Your task to perform on an android device: delete a single message in the gmail app Image 0: 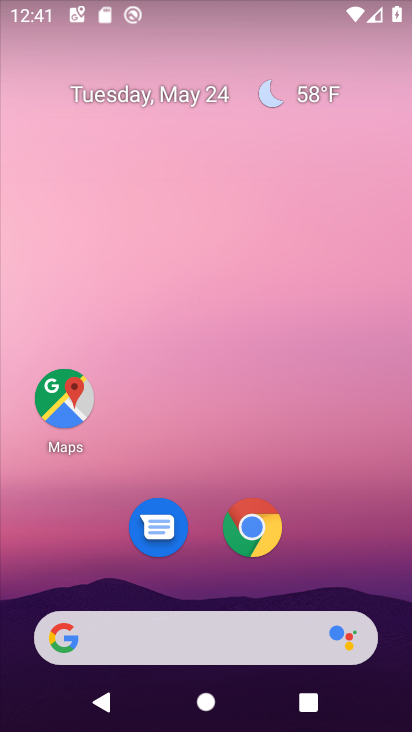
Step 0: drag from (374, 586) to (315, 64)
Your task to perform on an android device: delete a single message in the gmail app Image 1: 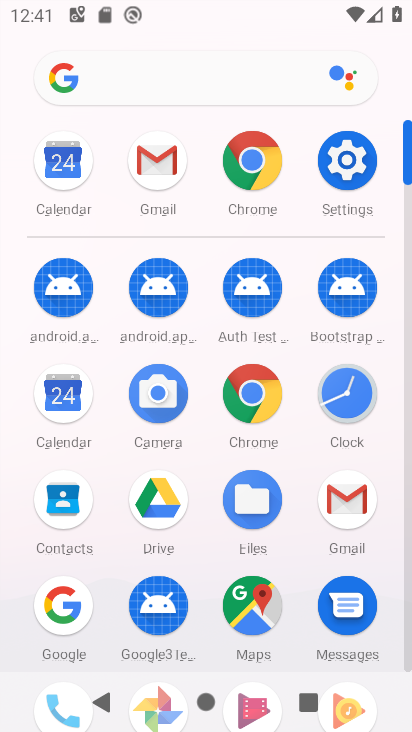
Step 1: click (151, 188)
Your task to perform on an android device: delete a single message in the gmail app Image 2: 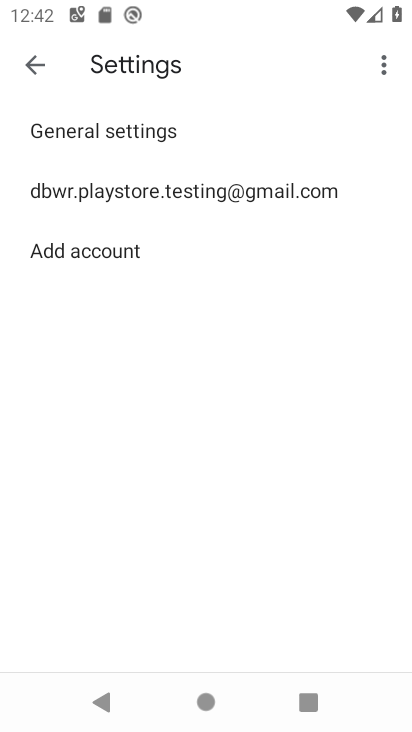
Step 2: click (28, 63)
Your task to perform on an android device: delete a single message in the gmail app Image 3: 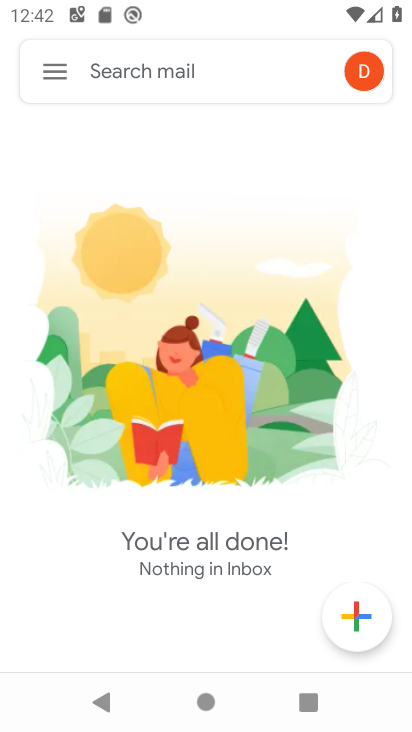
Step 3: task complete